Your task to perform on an android device: turn on translation in the chrome app Image 0: 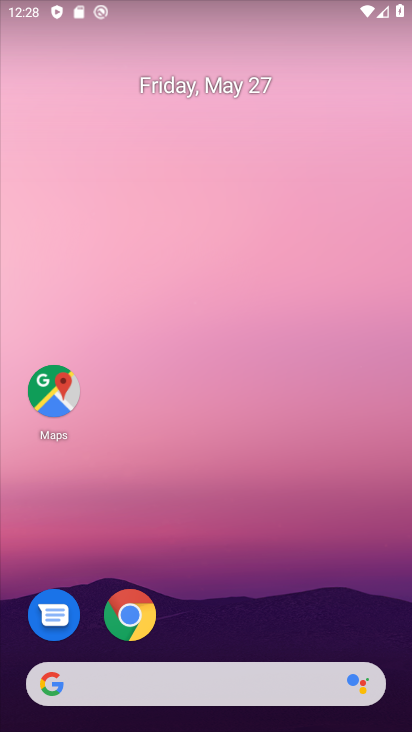
Step 0: press home button
Your task to perform on an android device: turn on translation in the chrome app Image 1: 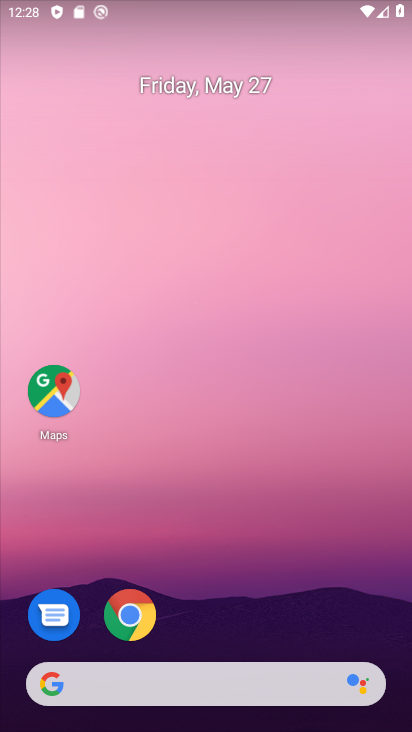
Step 1: click (134, 616)
Your task to perform on an android device: turn on translation in the chrome app Image 2: 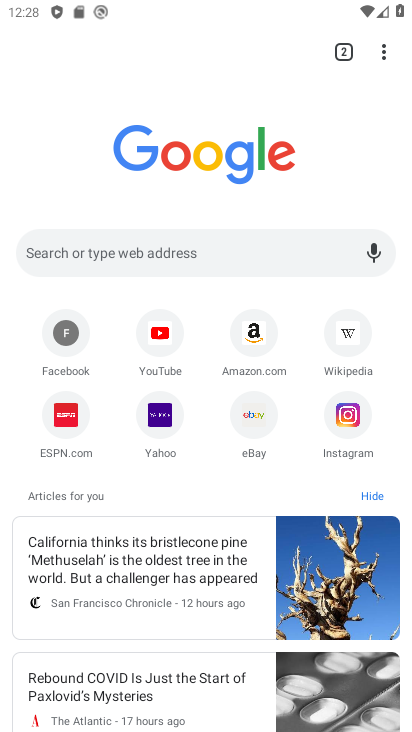
Step 2: click (384, 47)
Your task to perform on an android device: turn on translation in the chrome app Image 3: 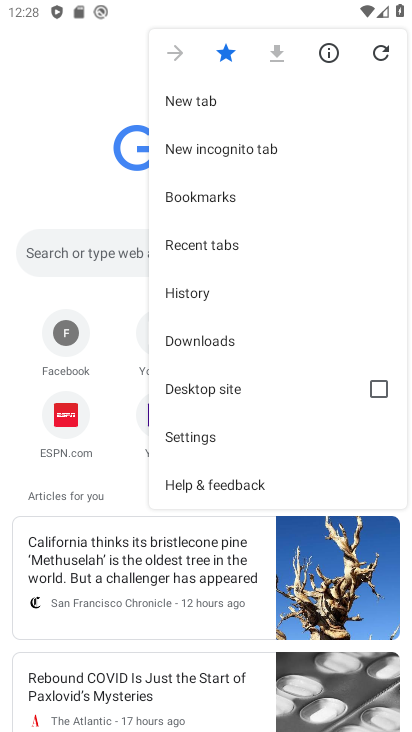
Step 3: click (203, 438)
Your task to perform on an android device: turn on translation in the chrome app Image 4: 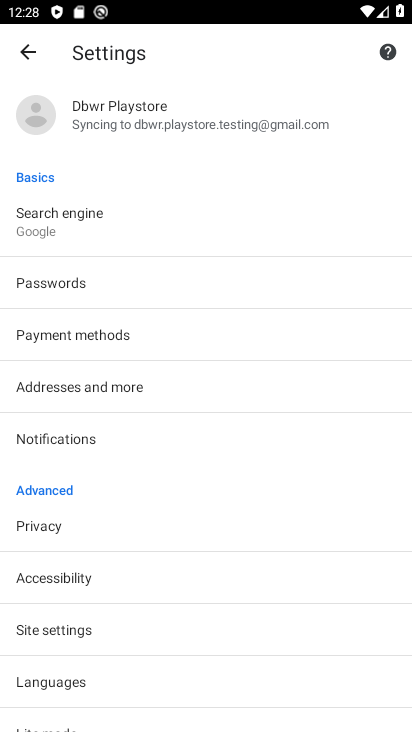
Step 4: click (44, 691)
Your task to perform on an android device: turn on translation in the chrome app Image 5: 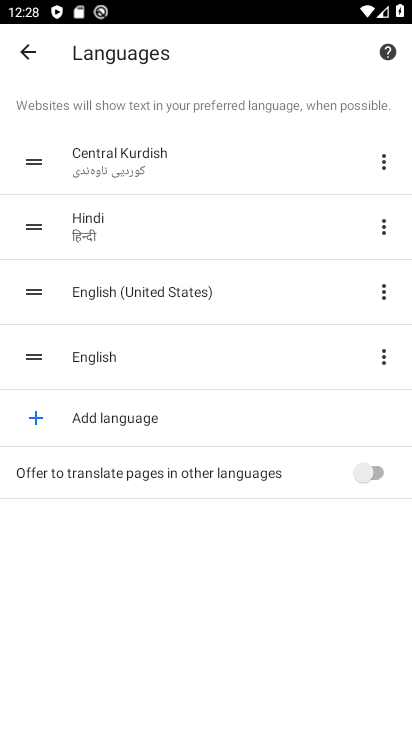
Step 5: click (361, 476)
Your task to perform on an android device: turn on translation in the chrome app Image 6: 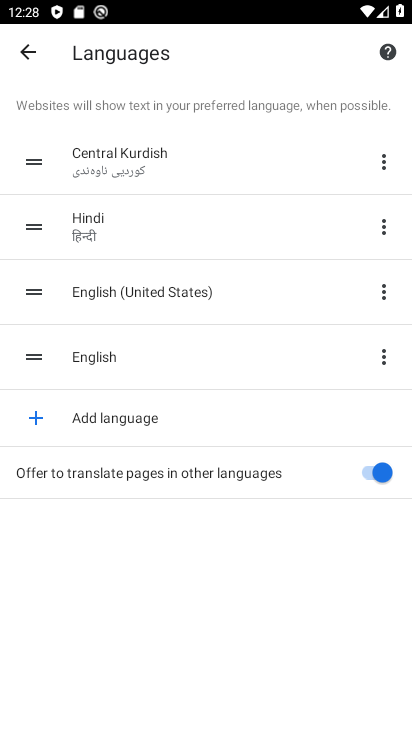
Step 6: task complete